Your task to perform on an android device: move an email to a new category in the gmail app Image 0: 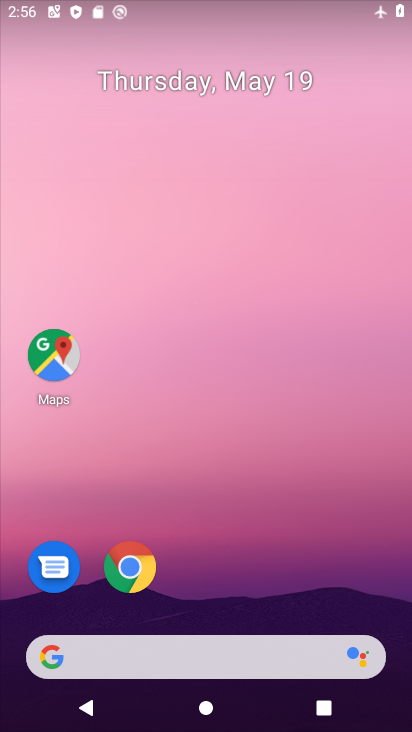
Step 0: click (216, 725)
Your task to perform on an android device: move an email to a new category in the gmail app Image 1: 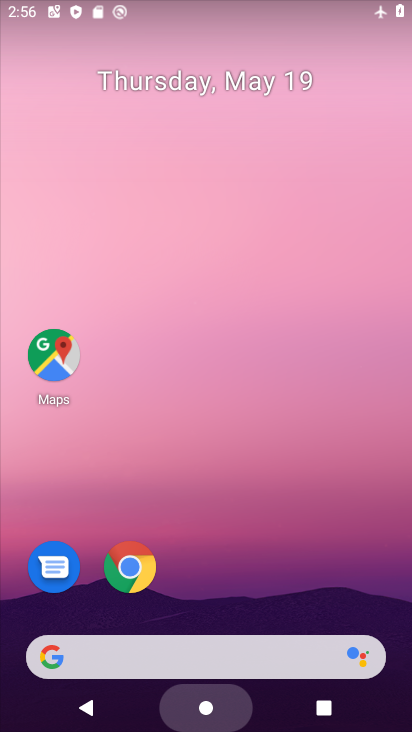
Step 1: drag from (219, 475) to (219, 272)
Your task to perform on an android device: move an email to a new category in the gmail app Image 2: 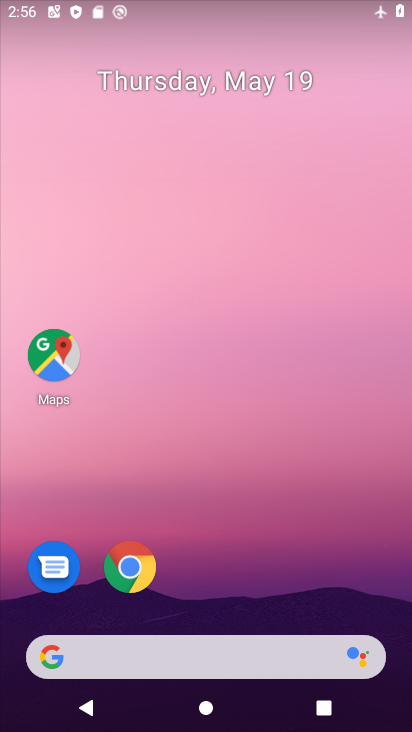
Step 2: drag from (223, 709) to (224, 200)
Your task to perform on an android device: move an email to a new category in the gmail app Image 3: 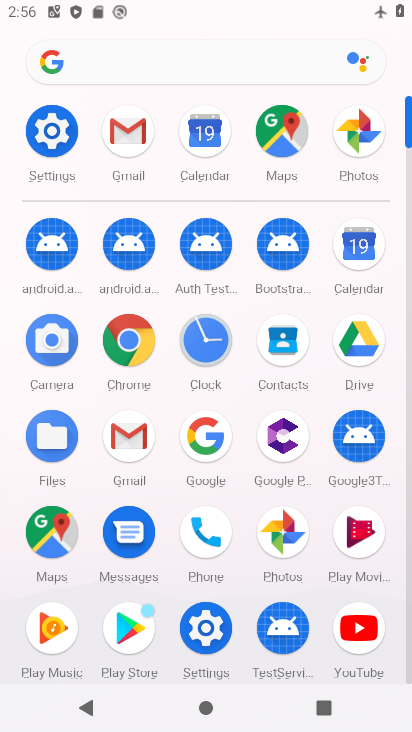
Step 3: click (134, 430)
Your task to perform on an android device: move an email to a new category in the gmail app Image 4: 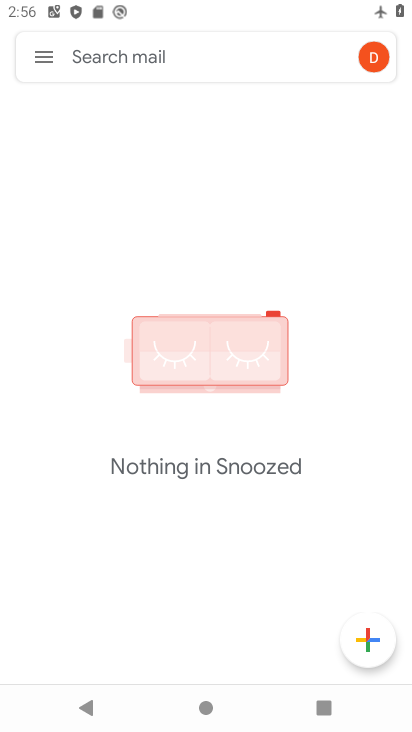
Step 4: click (46, 58)
Your task to perform on an android device: move an email to a new category in the gmail app Image 5: 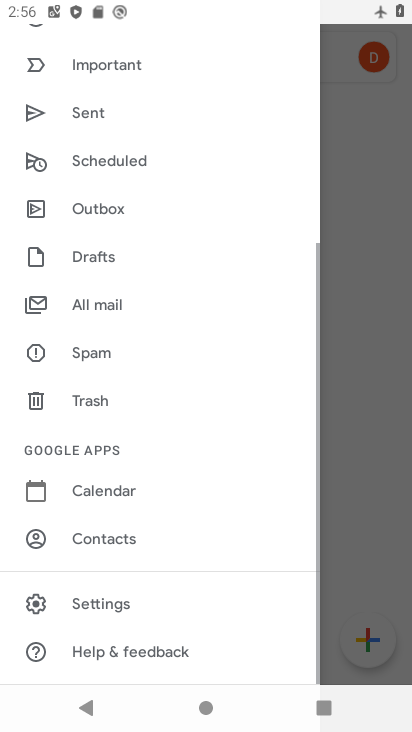
Step 5: drag from (131, 148) to (156, 304)
Your task to perform on an android device: move an email to a new category in the gmail app Image 6: 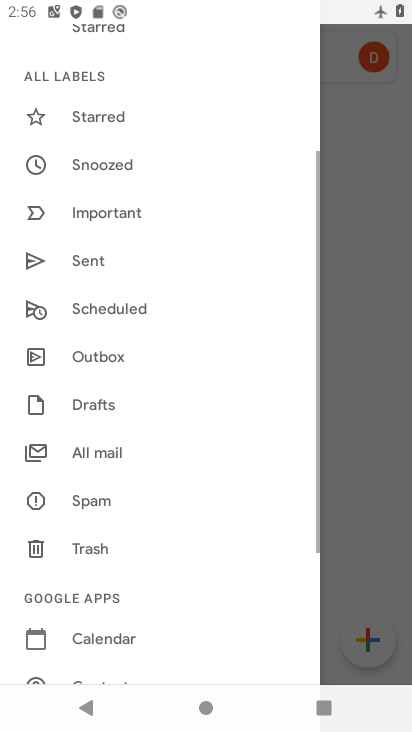
Step 6: click (170, 446)
Your task to perform on an android device: move an email to a new category in the gmail app Image 7: 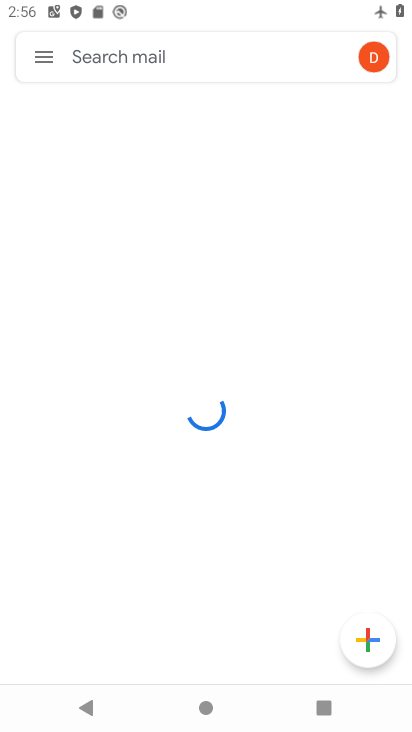
Step 7: click (40, 52)
Your task to perform on an android device: move an email to a new category in the gmail app Image 8: 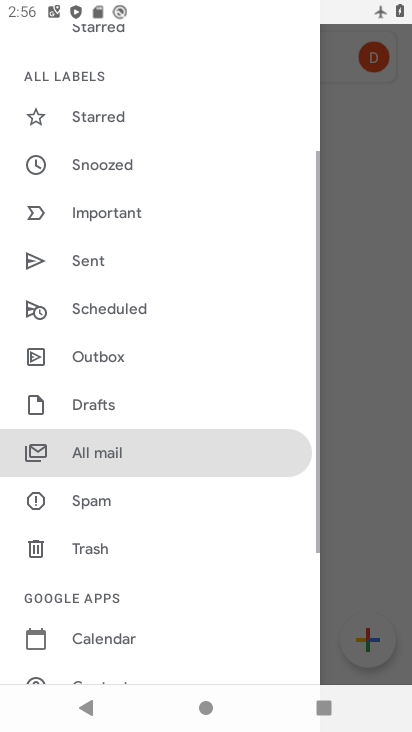
Step 8: drag from (133, 210) to (158, 609)
Your task to perform on an android device: move an email to a new category in the gmail app Image 9: 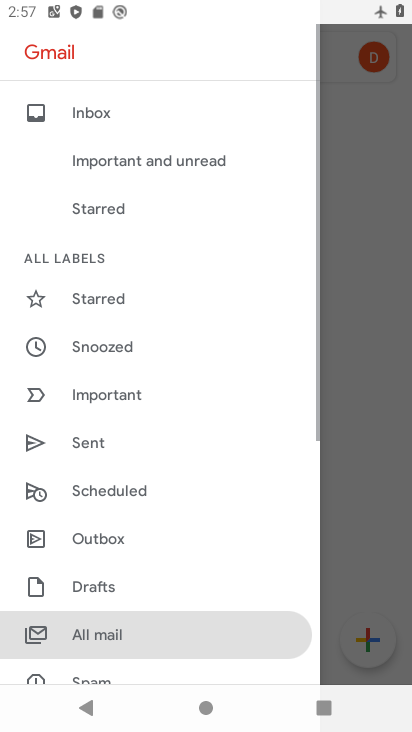
Step 9: click (93, 112)
Your task to perform on an android device: move an email to a new category in the gmail app Image 10: 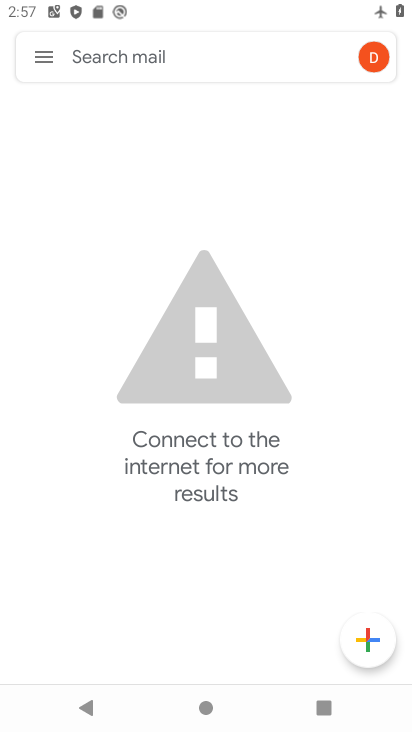
Step 10: task complete